Your task to perform on an android device: turn on sleep mode Image 0: 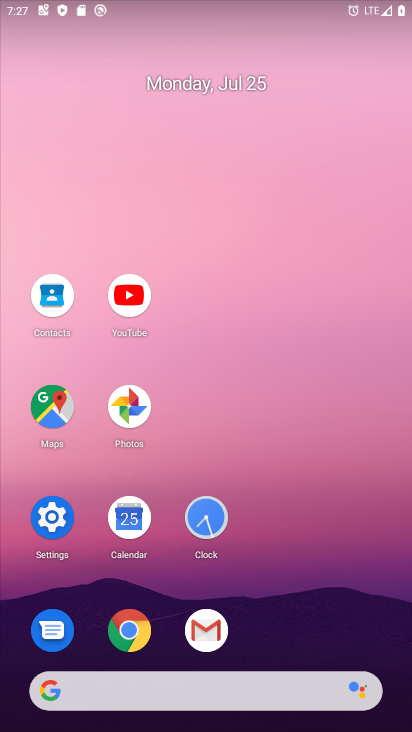
Step 0: click (48, 511)
Your task to perform on an android device: turn on sleep mode Image 1: 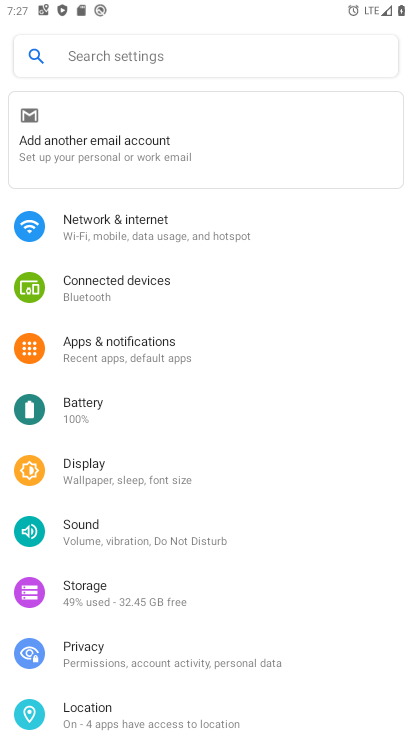
Step 1: click (90, 470)
Your task to perform on an android device: turn on sleep mode Image 2: 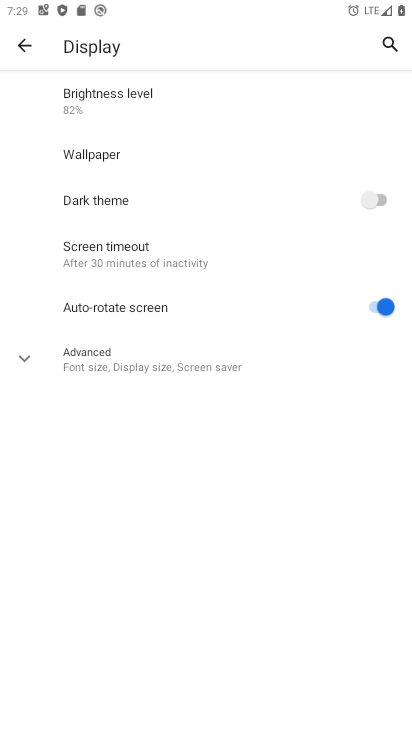
Step 2: task complete